Your task to perform on an android device: open device folders in google photos Image 0: 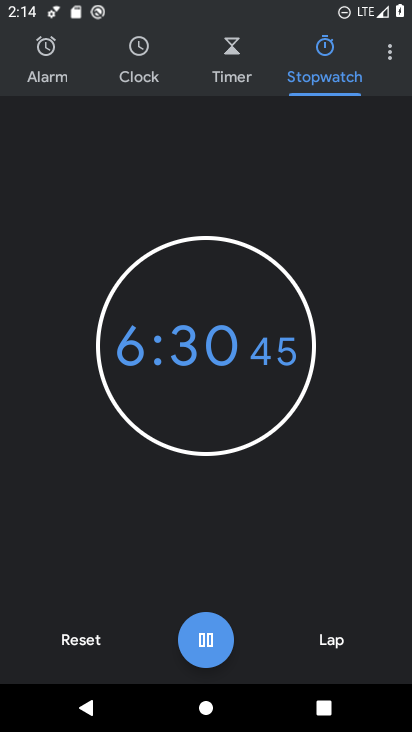
Step 0: press home button
Your task to perform on an android device: open device folders in google photos Image 1: 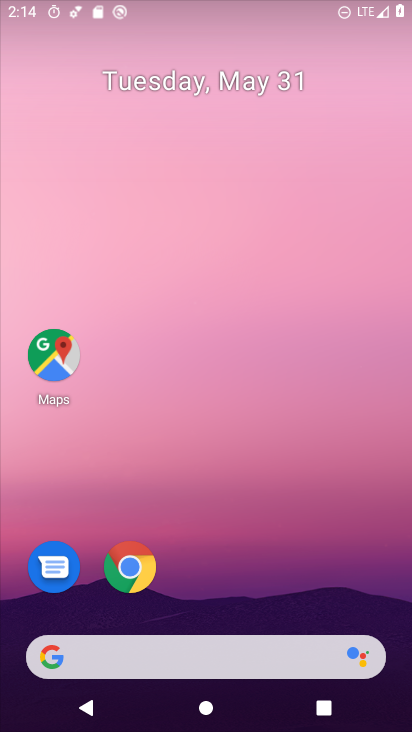
Step 1: drag from (225, 599) to (230, 108)
Your task to perform on an android device: open device folders in google photos Image 2: 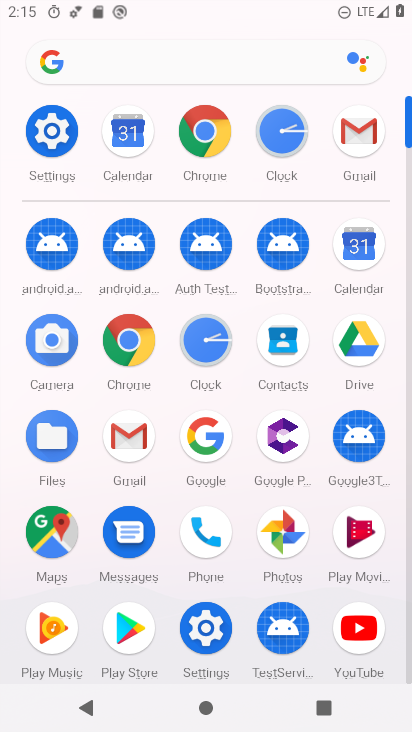
Step 2: click (265, 528)
Your task to perform on an android device: open device folders in google photos Image 3: 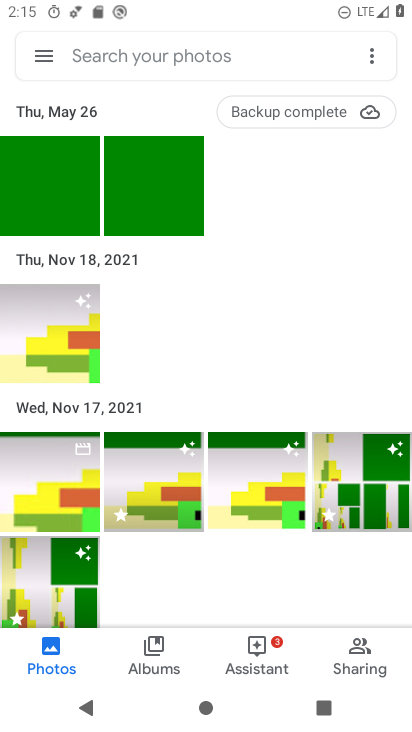
Step 3: click (54, 67)
Your task to perform on an android device: open device folders in google photos Image 4: 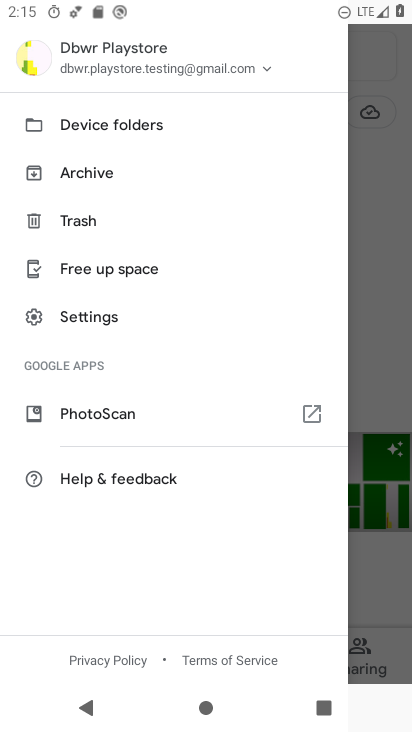
Step 4: click (132, 126)
Your task to perform on an android device: open device folders in google photos Image 5: 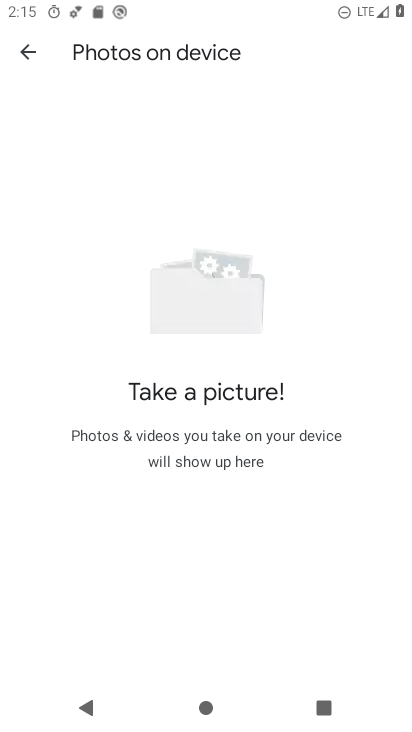
Step 5: task complete